Your task to perform on an android device: delete a single message in the gmail app Image 0: 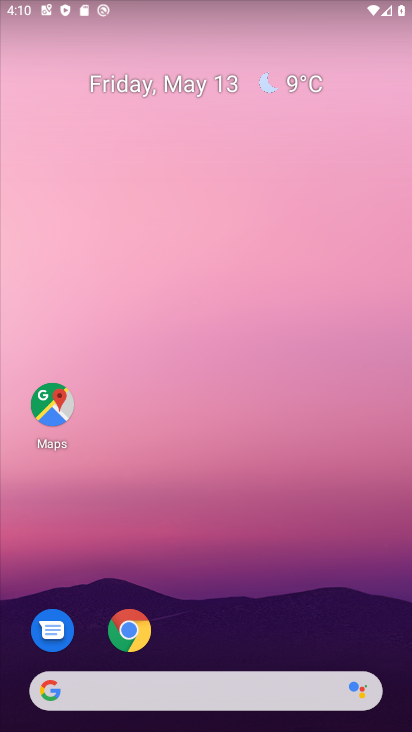
Step 0: drag from (258, 535) to (258, 39)
Your task to perform on an android device: delete a single message in the gmail app Image 1: 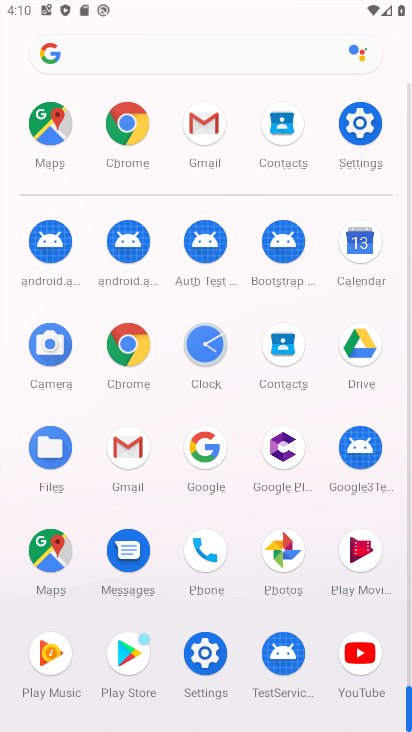
Step 1: drag from (14, 617) to (14, 407)
Your task to perform on an android device: delete a single message in the gmail app Image 2: 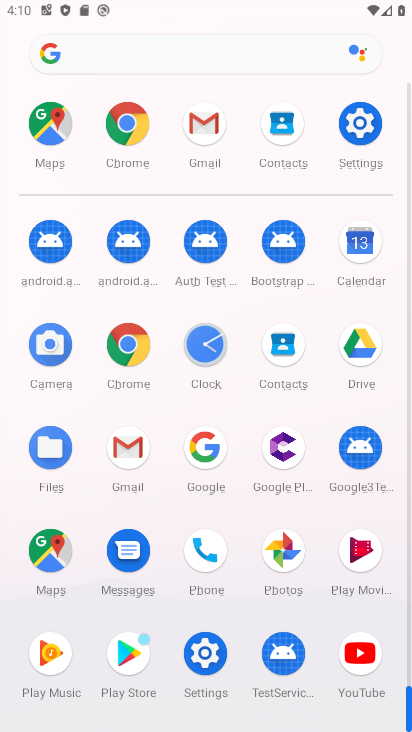
Step 2: click (125, 443)
Your task to perform on an android device: delete a single message in the gmail app Image 3: 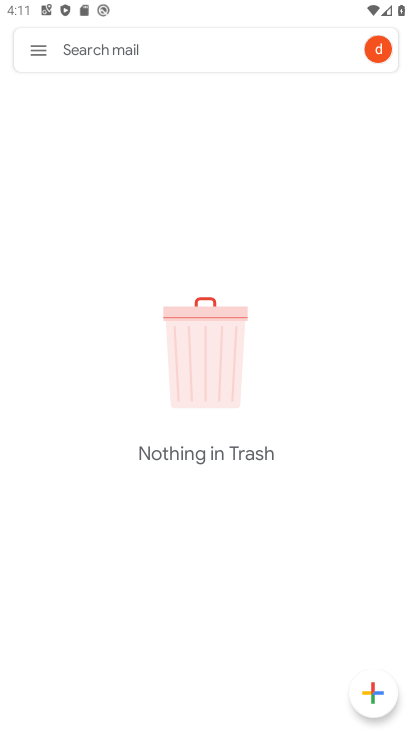
Step 3: click (36, 45)
Your task to perform on an android device: delete a single message in the gmail app Image 4: 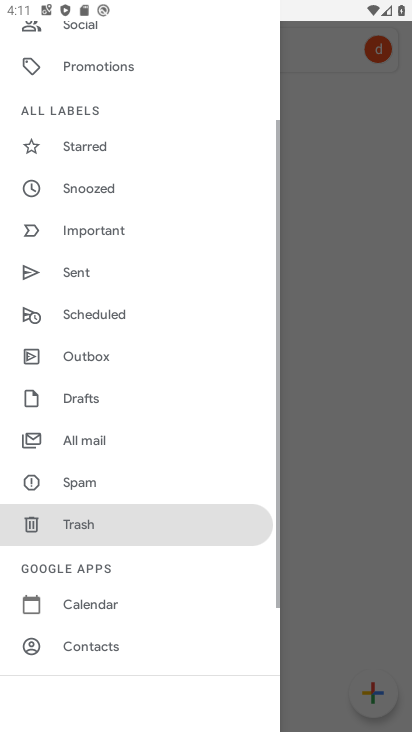
Step 4: drag from (145, 608) to (186, 109)
Your task to perform on an android device: delete a single message in the gmail app Image 5: 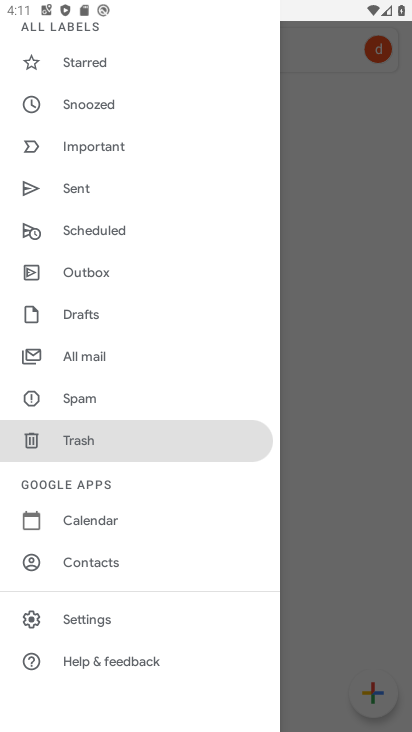
Step 5: click (100, 345)
Your task to perform on an android device: delete a single message in the gmail app Image 6: 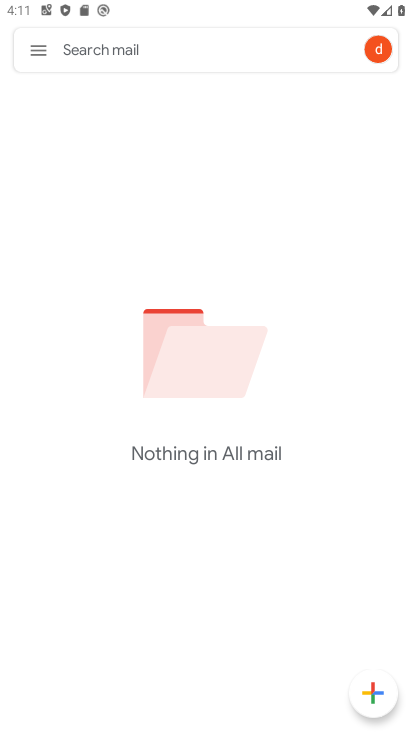
Step 6: click (40, 37)
Your task to perform on an android device: delete a single message in the gmail app Image 7: 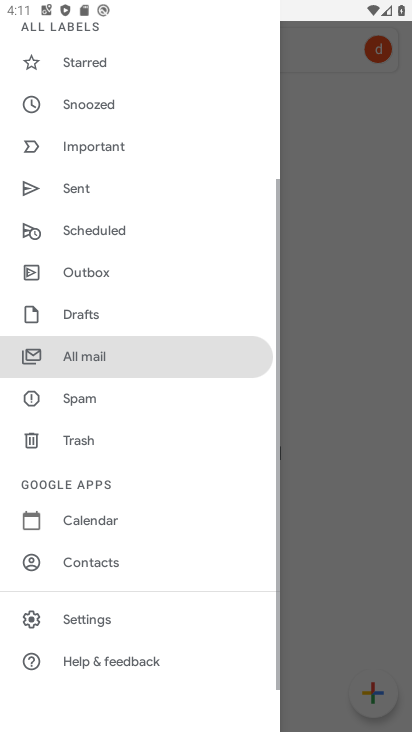
Step 7: drag from (141, 130) to (193, 570)
Your task to perform on an android device: delete a single message in the gmail app Image 8: 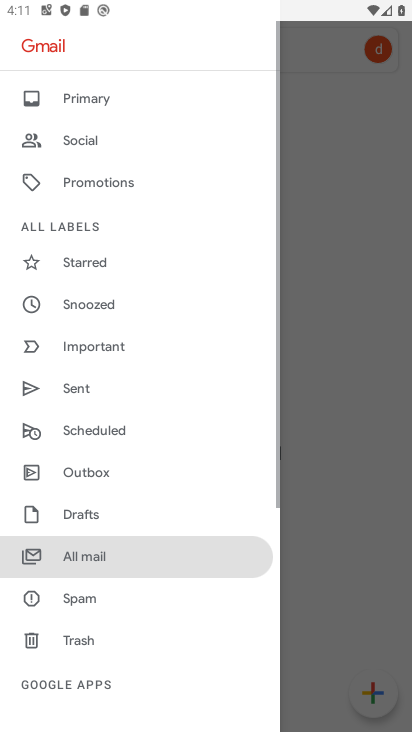
Step 8: click (113, 91)
Your task to perform on an android device: delete a single message in the gmail app Image 9: 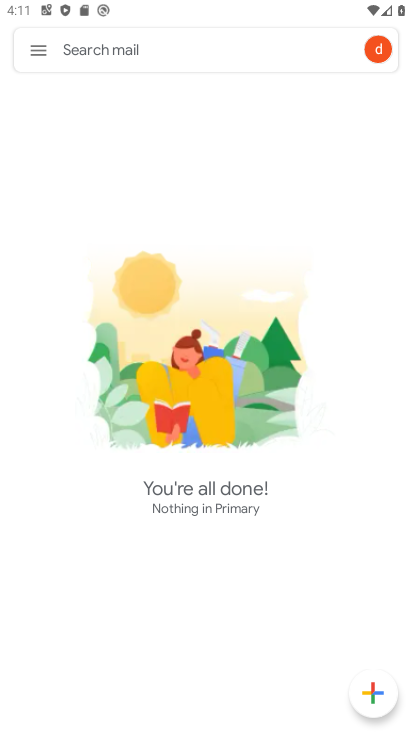
Step 9: task complete